Your task to perform on an android device: Go to calendar. Show me events next week Image 0: 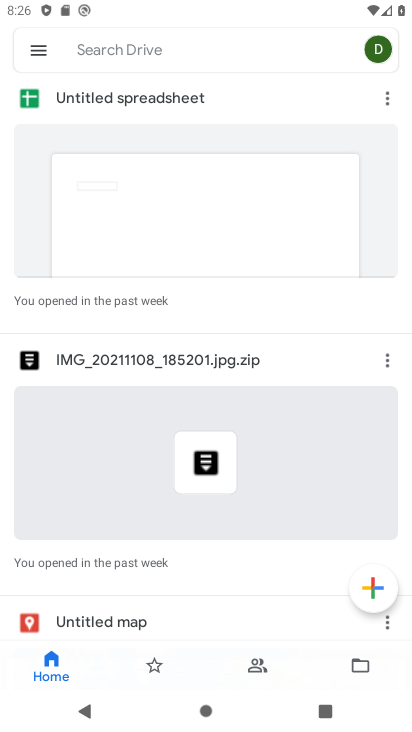
Step 0: press home button
Your task to perform on an android device: Go to calendar. Show me events next week Image 1: 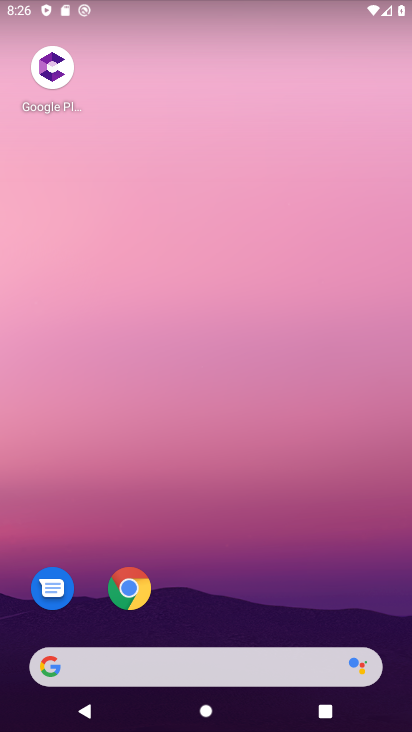
Step 1: drag from (286, 571) to (297, 345)
Your task to perform on an android device: Go to calendar. Show me events next week Image 2: 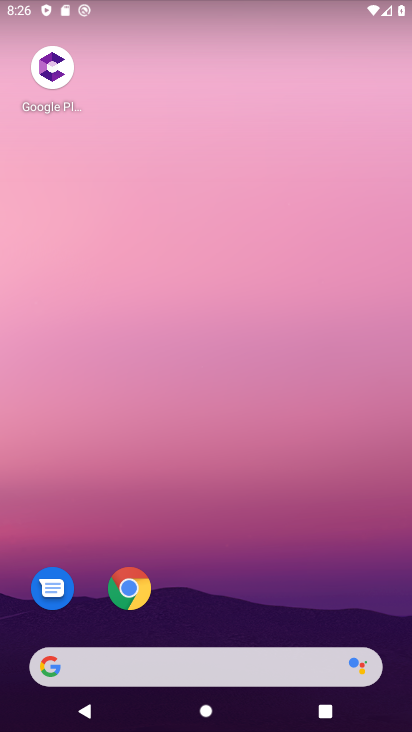
Step 2: drag from (196, 612) to (251, 209)
Your task to perform on an android device: Go to calendar. Show me events next week Image 3: 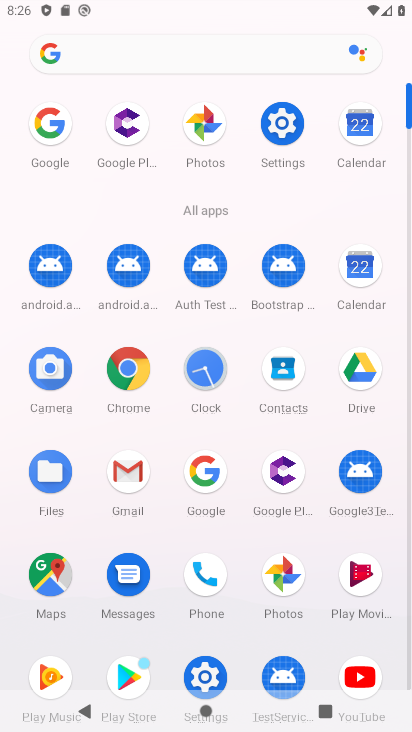
Step 3: click (354, 136)
Your task to perform on an android device: Go to calendar. Show me events next week Image 4: 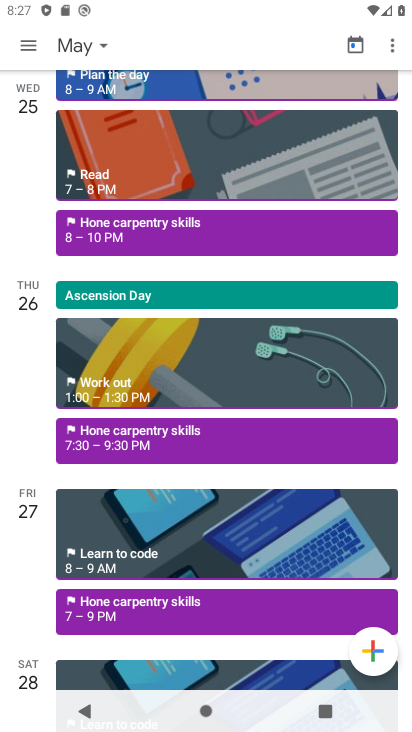
Step 4: click (96, 47)
Your task to perform on an android device: Go to calendar. Show me events next week Image 5: 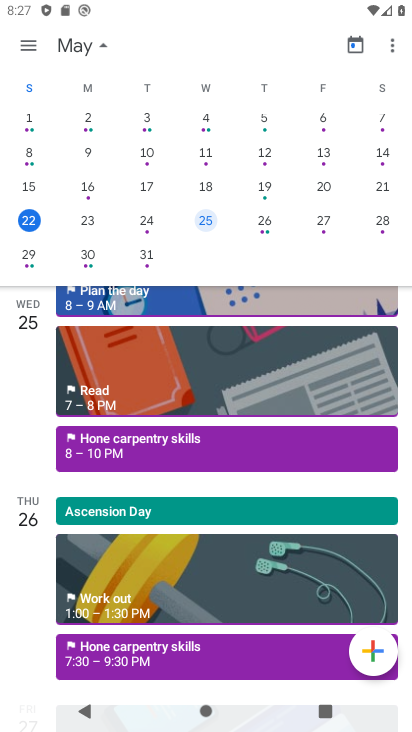
Step 5: drag from (278, 526) to (292, 379)
Your task to perform on an android device: Go to calendar. Show me events next week Image 6: 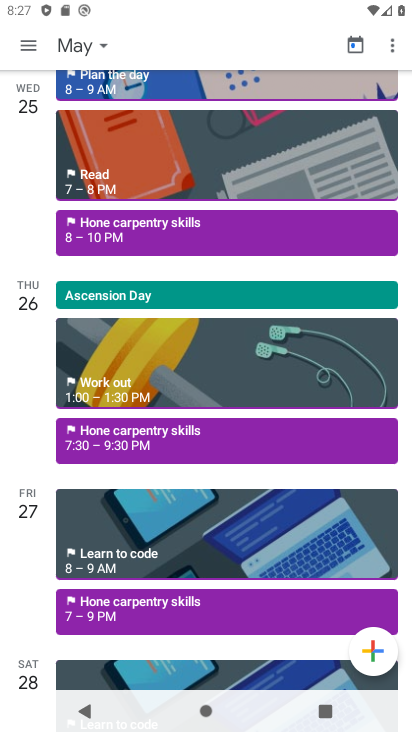
Step 6: drag from (197, 280) to (204, 634)
Your task to perform on an android device: Go to calendar. Show me events next week Image 7: 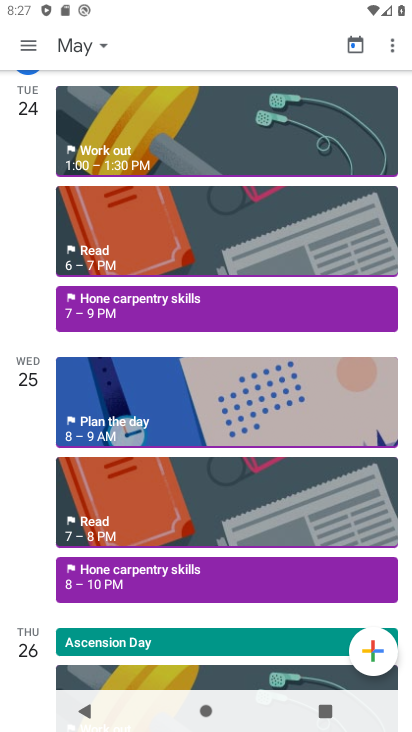
Step 7: drag from (225, 207) to (234, 555)
Your task to perform on an android device: Go to calendar. Show me events next week Image 8: 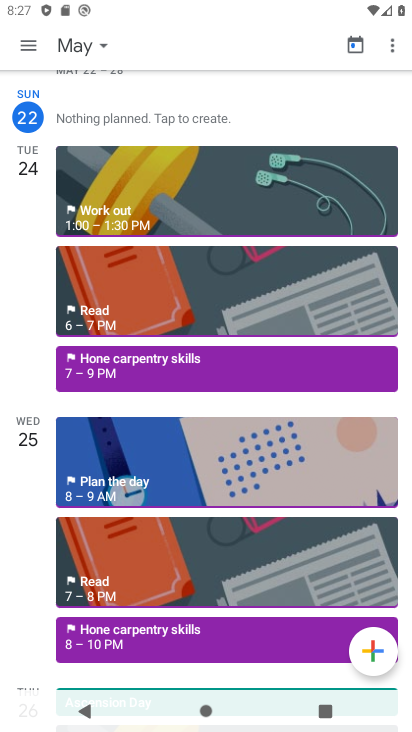
Step 8: click (99, 43)
Your task to perform on an android device: Go to calendar. Show me events next week Image 9: 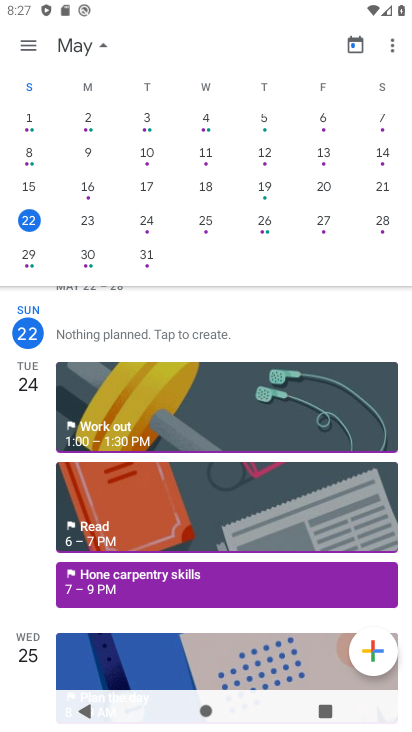
Step 9: click (32, 262)
Your task to perform on an android device: Go to calendar. Show me events next week Image 10: 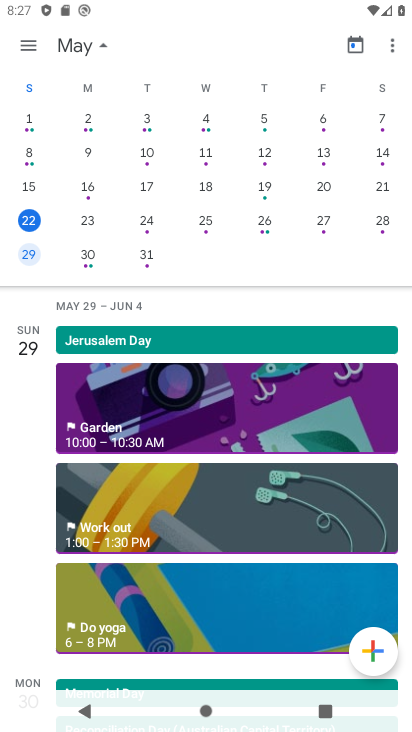
Step 10: task complete